Your task to perform on an android device: Add beats solo 3 to the cart on costco Image 0: 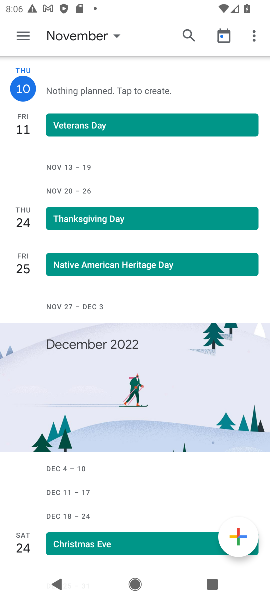
Step 0: press home button
Your task to perform on an android device: Add beats solo 3 to the cart on costco Image 1: 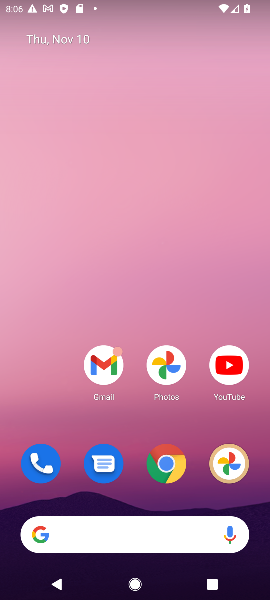
Step 1: click (163, 461)
Your task to perform on an android device: Add beats solo 3 to the cart on costco Image 2: 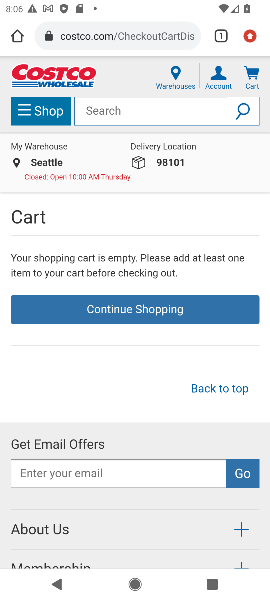
Step 2: click (129, 33)
Your task to perform on an android device: Add beats solo 3 to the cart on costco Image 3: 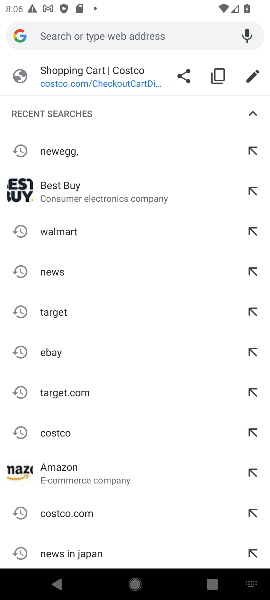
Step 3: click (56, 429)
Your task to perform on an android device: Add beats solo 3 to the cart on costco Image 4: 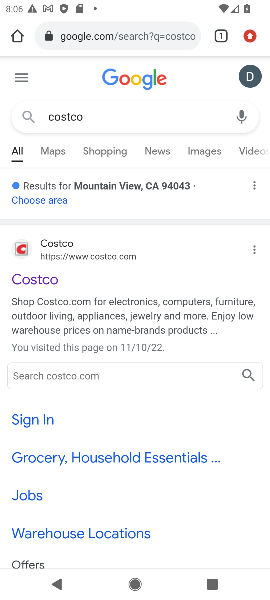
Step 4: click (33, 281)
Your task to perform on an android device: Add beats solo 3 to the cart on costco Image 5: 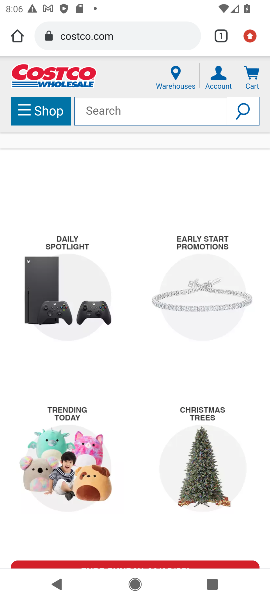
Step 5: click (121, 114)
Your task to perform on an android device: Add beats solo 3 to the cart on costco Image 6: 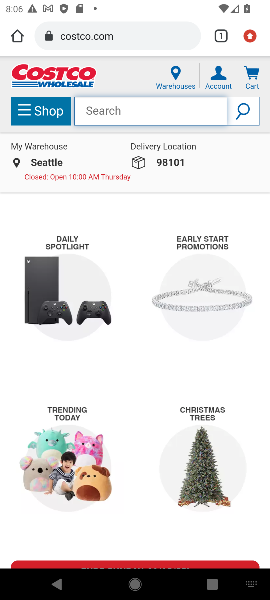
Step 6: type "beats solo 3"
Your task to perform on an android device: Add beats solo 3 to the cart on costco Image 7: 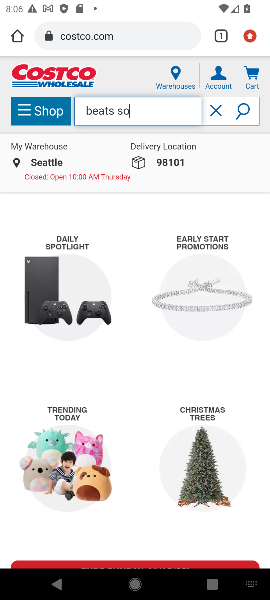
Step 7: press enter
Your task to perform on an android device: Add beats solo 3 to the cart on costco Image 8: 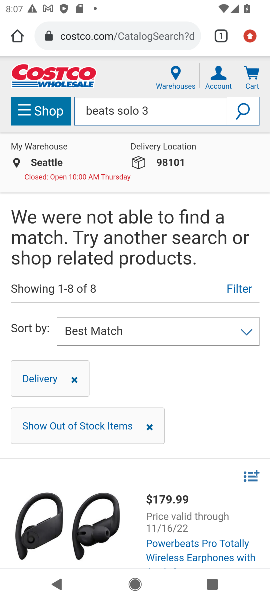
Step 8: task complete